Your task to perform on an android device: check data usage Image 0: 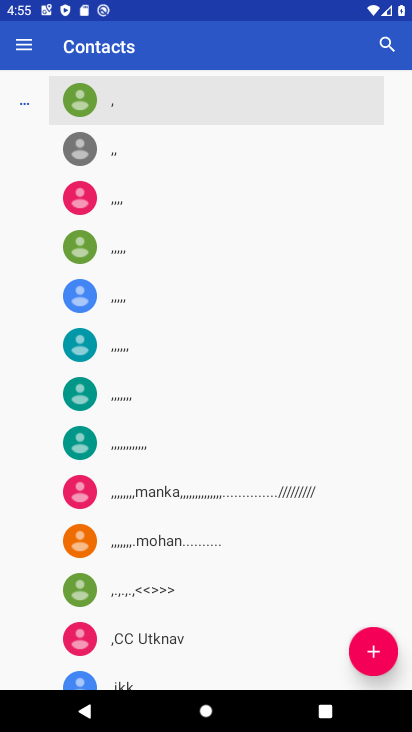
Step 0: press back button
Your task to perform on an android device: check data usage Image 1: 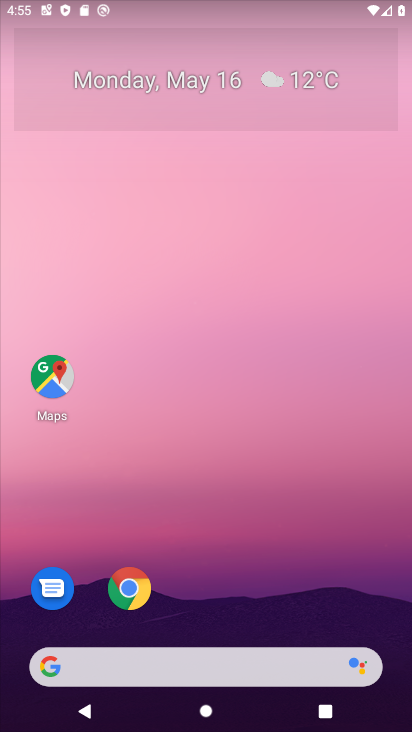
Step 1: drag from (212, 362) to (219, 162)
Your task to perform on an android device: check data usage Image 2: 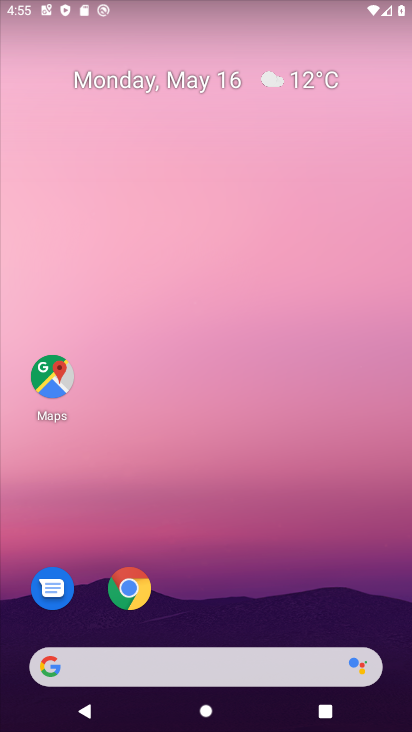
Step 2: drag from (202, 534) to (280, 43)
Your task to perform on an android device: check data usage Image 3: 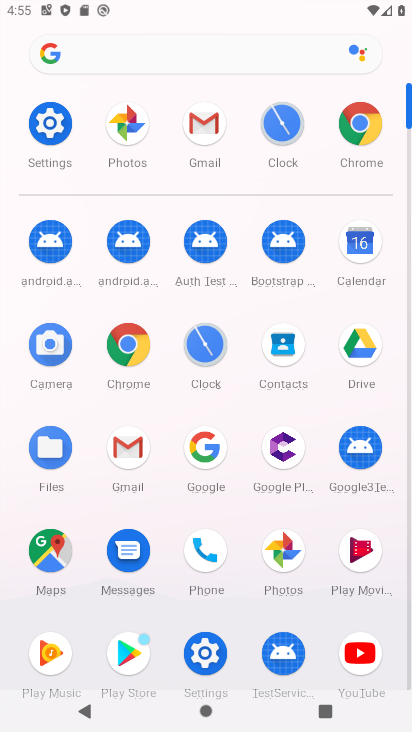
Step 3: click (64, 119)
Your task to perform on an android device: check data usage Image 4: 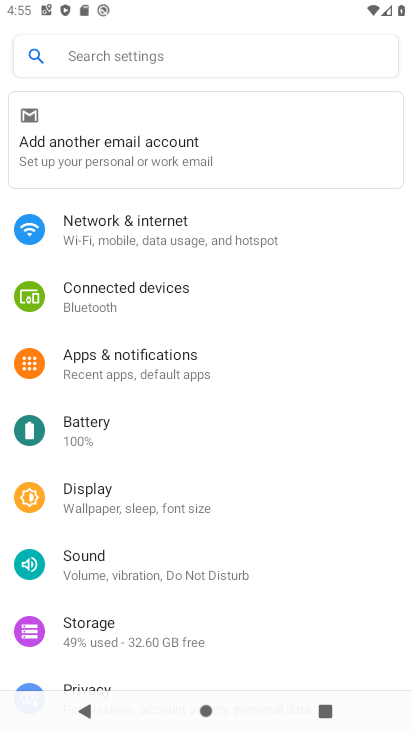
Step 4: click (169, 235)
Your task to perform on an android device: check data usage Image 5: 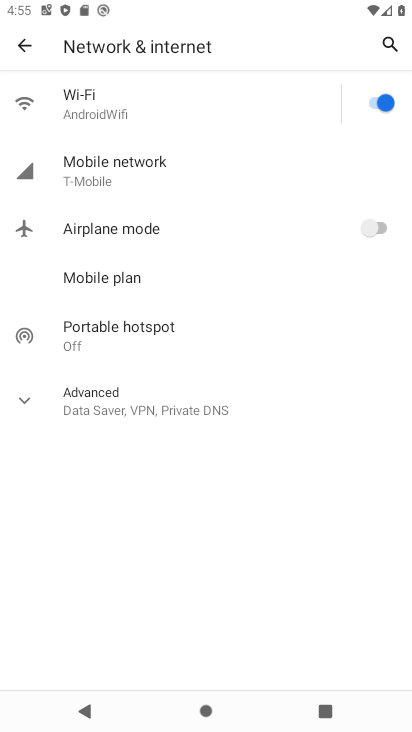
Step 5: click (110, 400)
Your task to perform on an android device: check data usage Image 6: 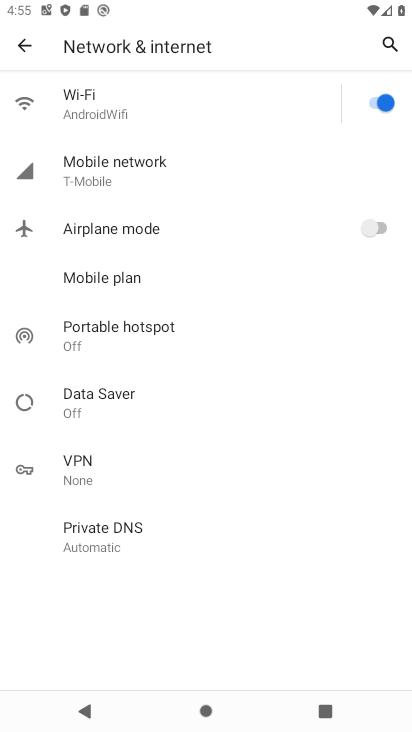
Step 6: click (102, 173)
Your task to perform on an android device: check data usage Image 7: 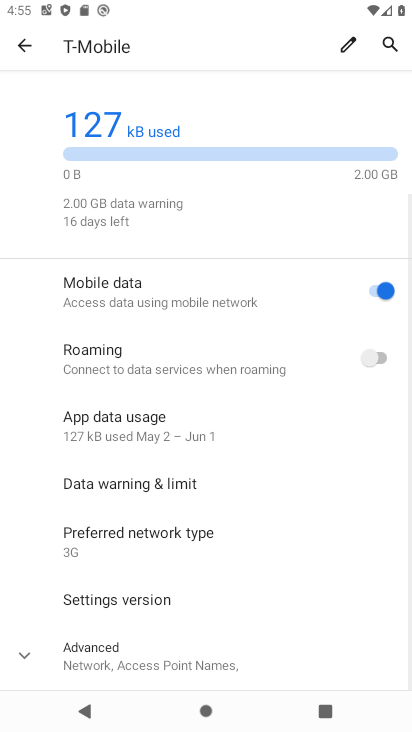
Step 7: click (145, 423)
Your task to perform on an android device: check data usage Image 8: 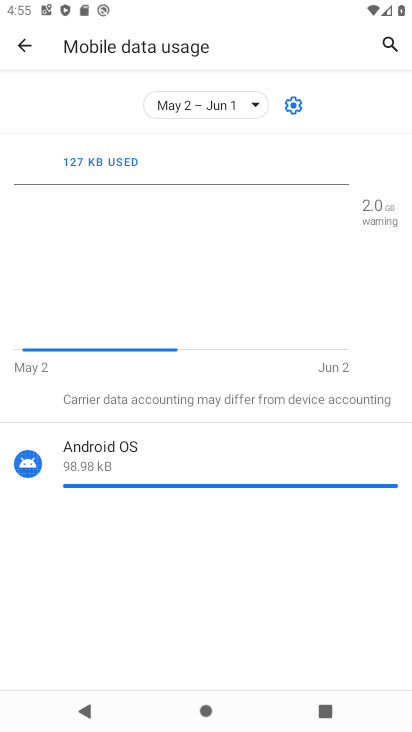
Step 8: task complete